Your task to perform on an android device: What's on my calendar tomorrow? Image 0: 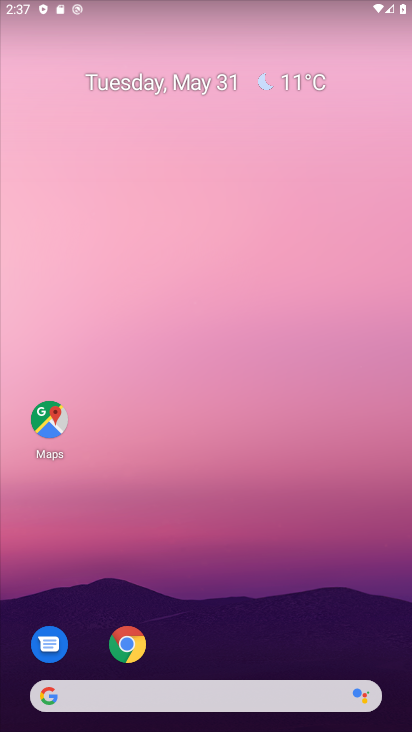
Step 0: drag from (313, 571) to (204, 18)
Your task to perform on an android device: What's on my calendar tomorrow? Image 1: 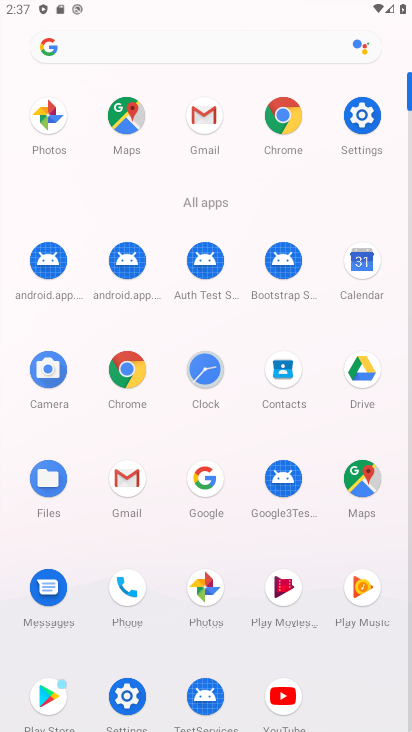
Step 1: click (363, 271)
Your task to perform on an android device: What's on my calendar tomorrow? Image 2: 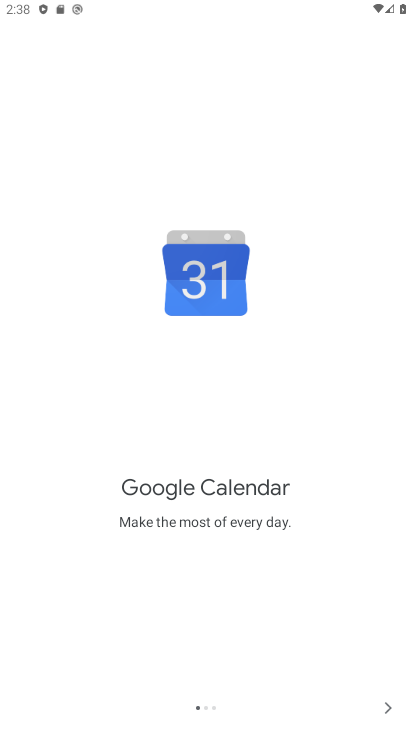
Step 2: click (395, 701)
Your task to perform on an android device: What's on my calendar tomorrow? Image 3: 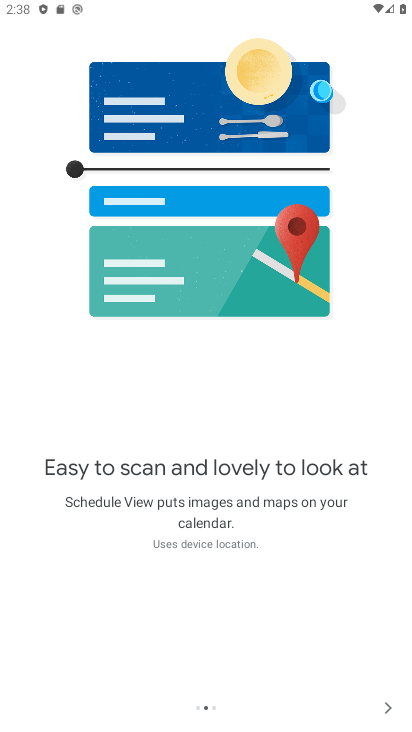
Step 3: click (395, 701)
Your task to perform on an android device: What's on my calendar tomorrow? Image 4: 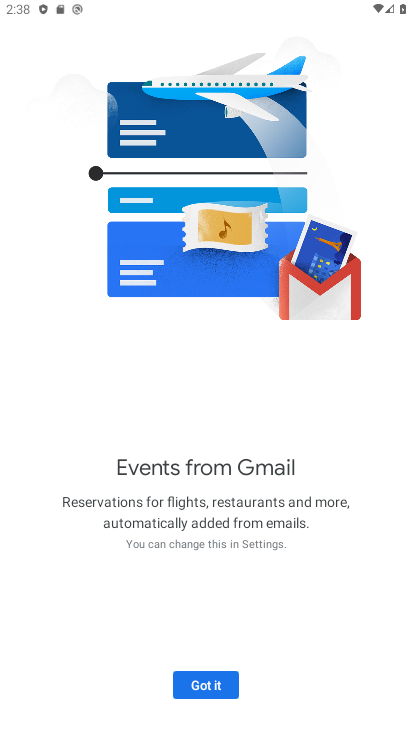
Step 4: click (212, 684)
Your task to perform on an android device: What's on my calendar tomorrow? Image 5: 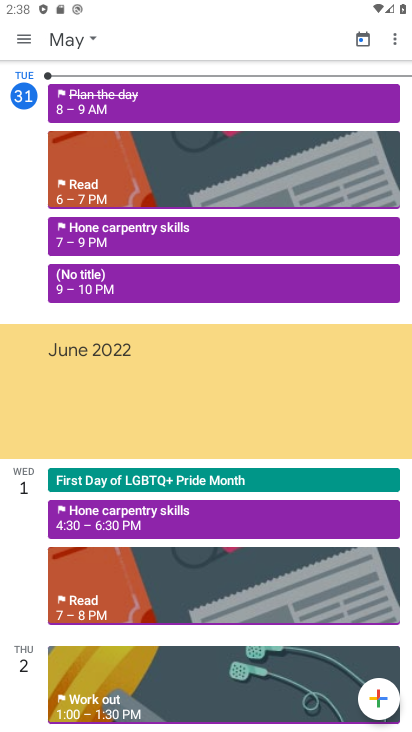
Step 5: drag from (189, 577) to (166, 286)
Your task to perform on an android device: What's on my calendar tomorrow? Image 6: 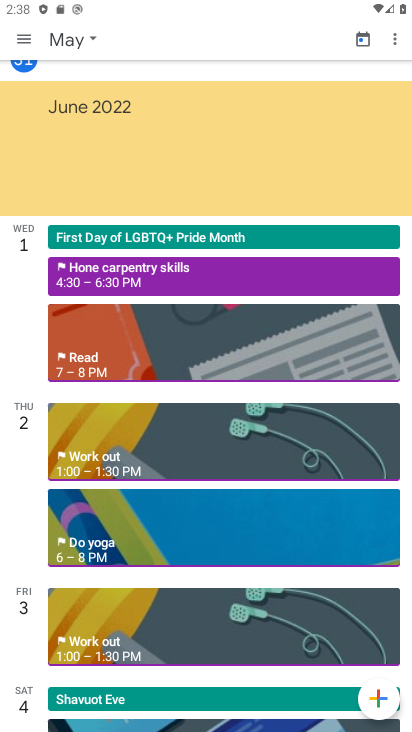
Step 6: drag from (171, 447) to (156, 269)
Your task to perform on an android device: What's on my calendar tomorrow? Image 7: 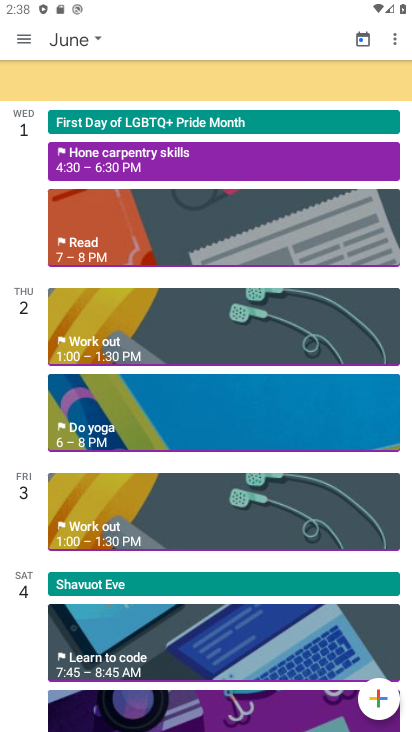
Step 7: click (30, 20)
Your task to perform on an android device: What's on my calendar tomorrow? Image 8: 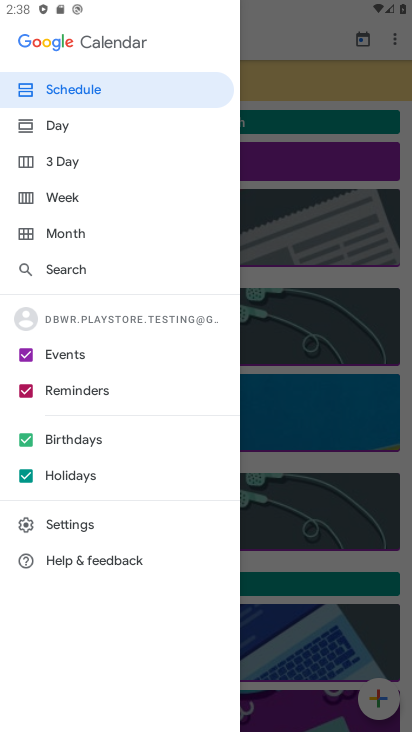
Step 8: click (277, 119)
Your task to perform on an android device: What's on my calendar tomorrow? Image 9: 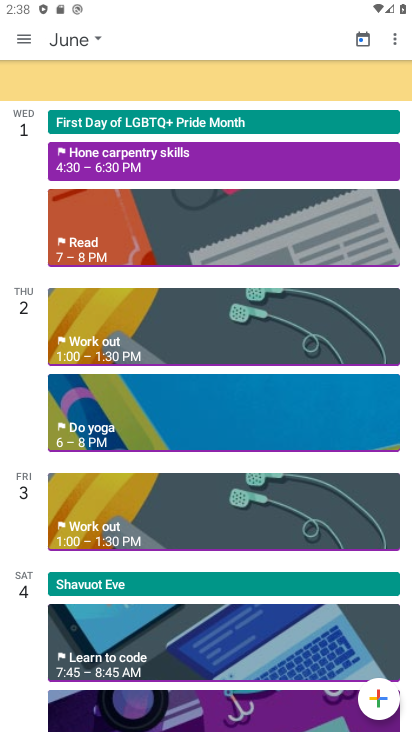
Step 9: click (45, 118)
Your task to perform on an android device: What's on my calendar tomorrow? Image 10: 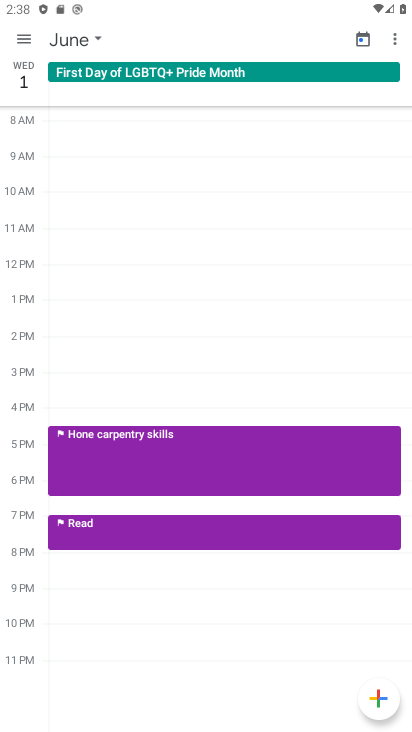
Step 10: task complete